Your task to perform on an android device: What's on my calendar tomorrow? Image 0: 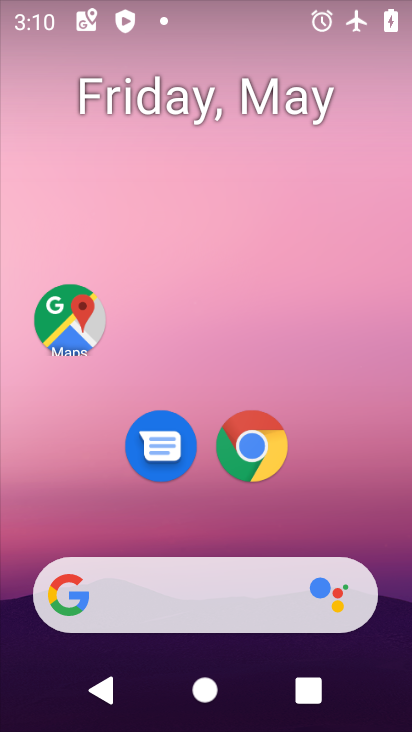
Step 0: drag from (362, 514) to (247, 119)
Your task to perform on an android device: What's on my calendar tomorrow? Image 1: 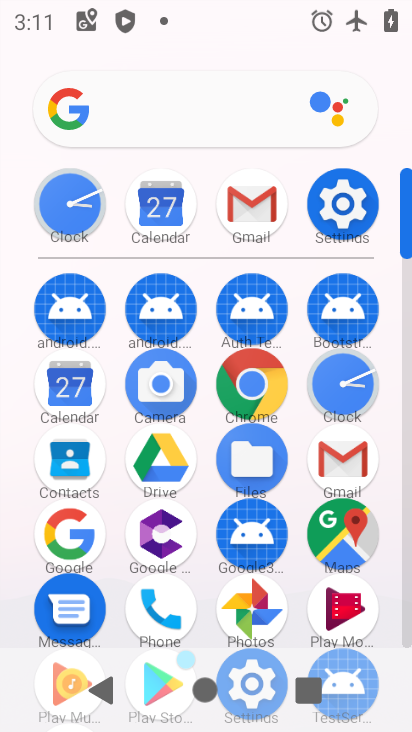
Step 1: click (80, 371)
Your task to perform on an android device: What's on my calendar tomorrow? Image 2: 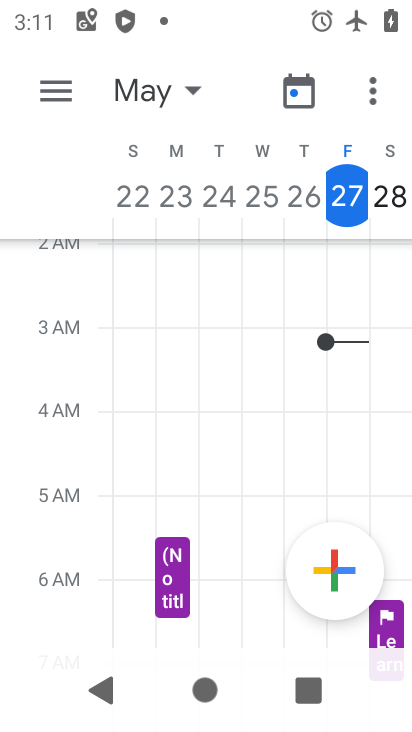
Step 2: click (65, 85)
Your task to perform on an android device: What's on my calendar tomorrow? Image 3: 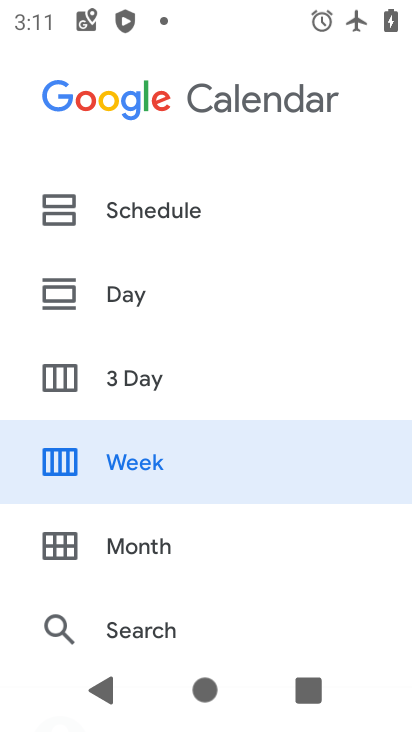
Step 3: click (102, 304)
Your task to perform on an android device: What's on my calendar tomorrow? Image 4: 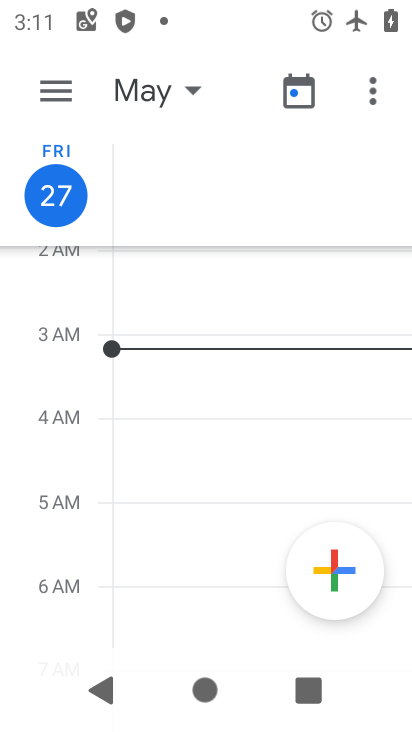
Step 4: click (191, 92)
Your task to perform on an android device: What's on my calendar tomorrow? Image 5: 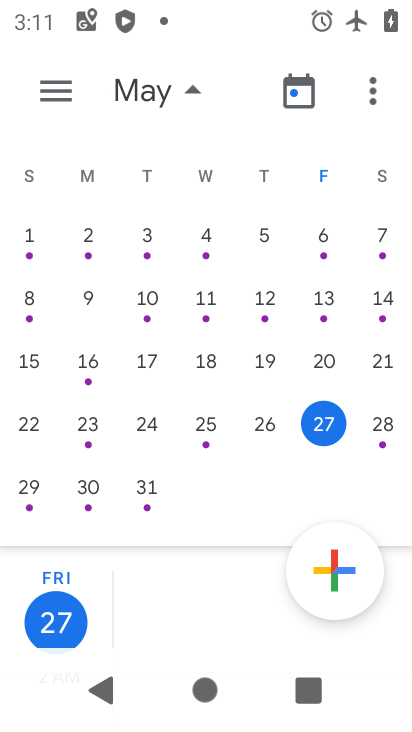
Step 5: click (384, 431)
Your task to perform on an android device: What's on my calendar tomorrow? Image 6: 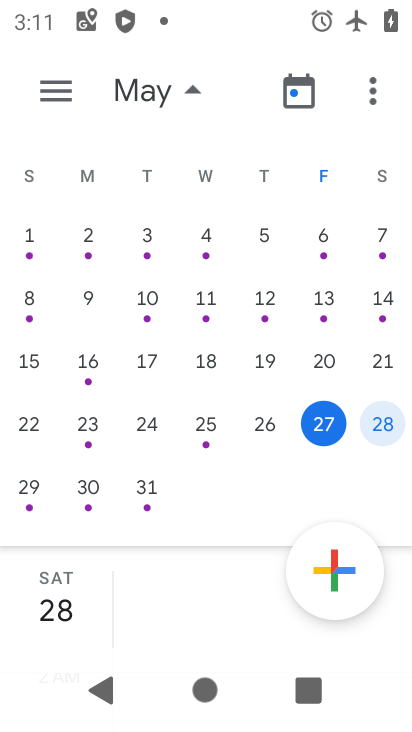
Step 6: click (185, 104)
Your task to perform on an android device: What's on my calendar tomorrow? Image 7: 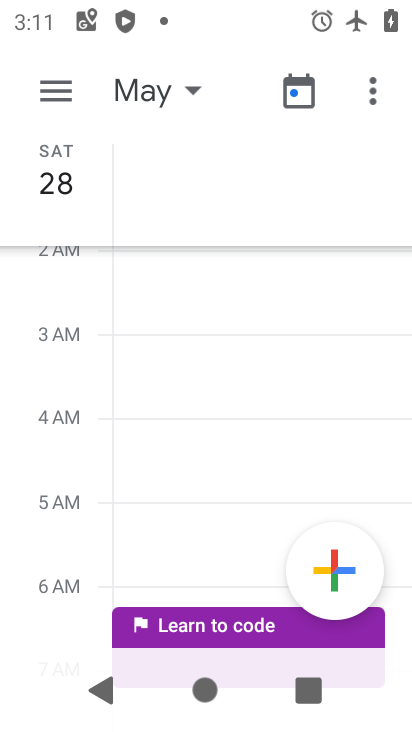
Step 7: task complete